Your task to perform on an android device: Open maps Image 0: 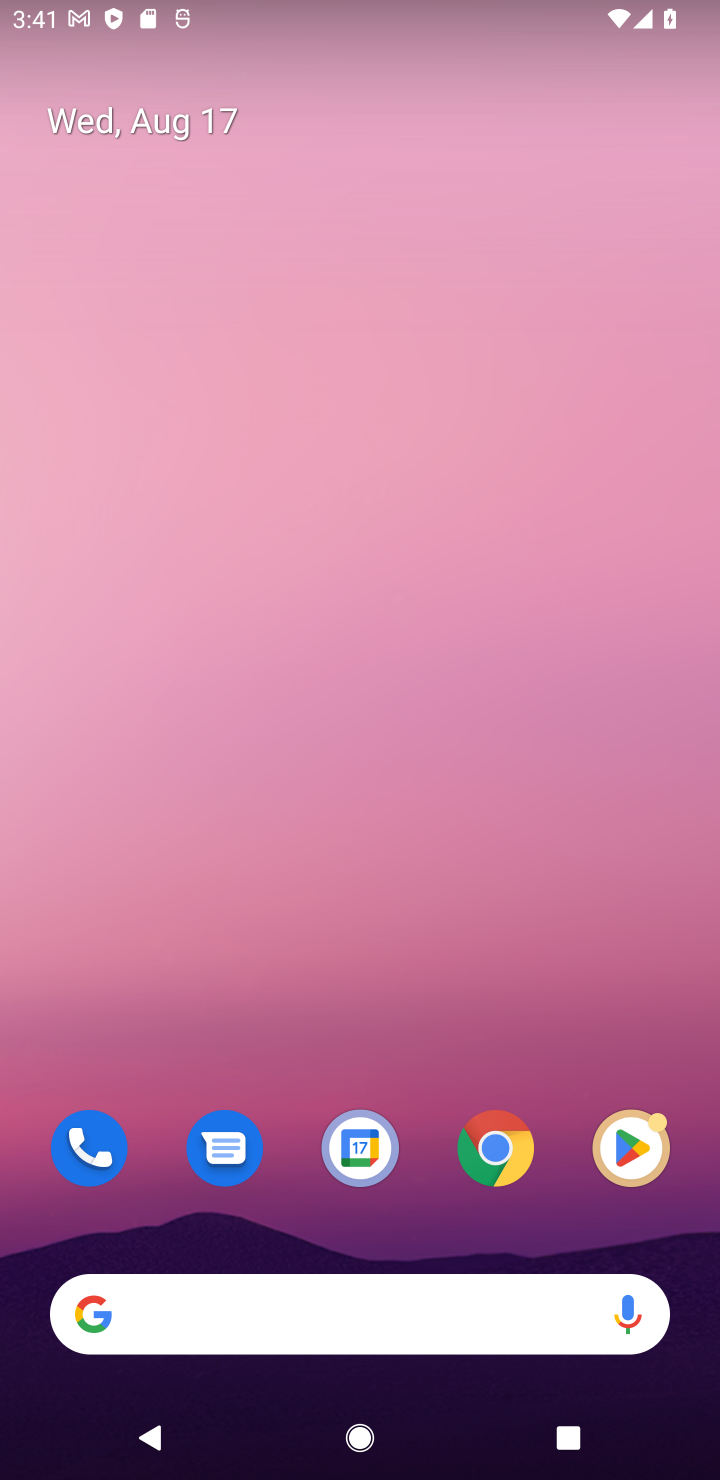
Step 0: drag from (556, 1050) to (551, 31)
Your task to perform on an android device: Open maps Image 1: 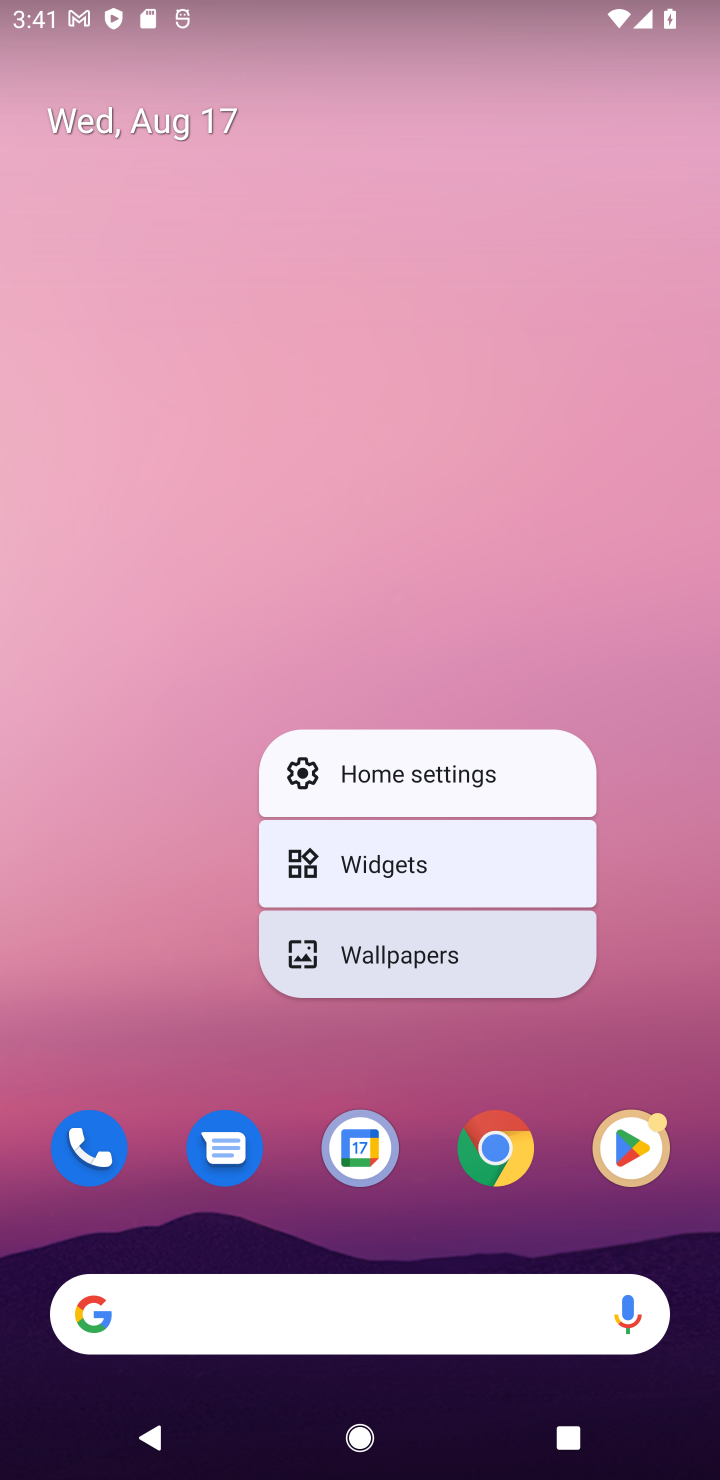
Step 1: click (680, 646)
Your task to perform on an android device: Open maps Image 2: 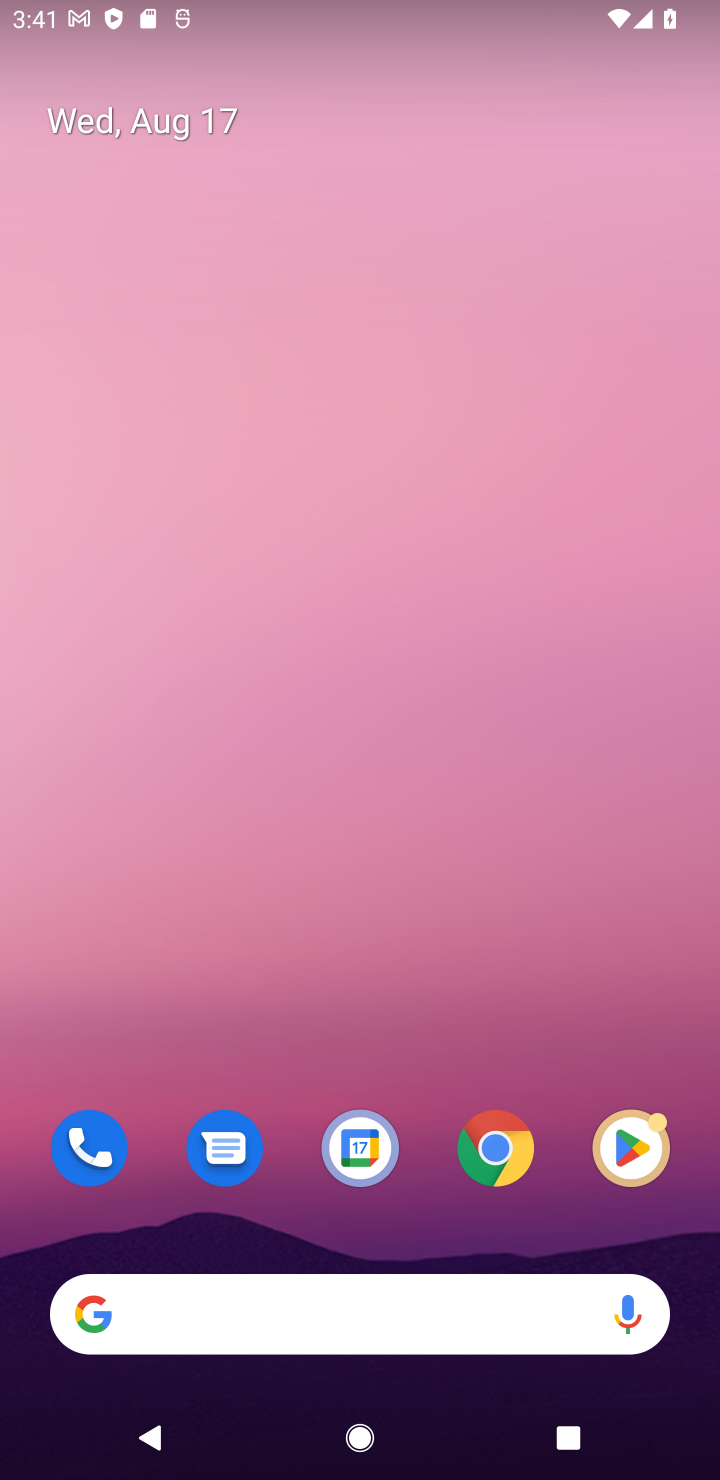
Step 2: drag from (561, 1088) to (530, 502)
Your task to perform on an android device: Open maps Image 3: 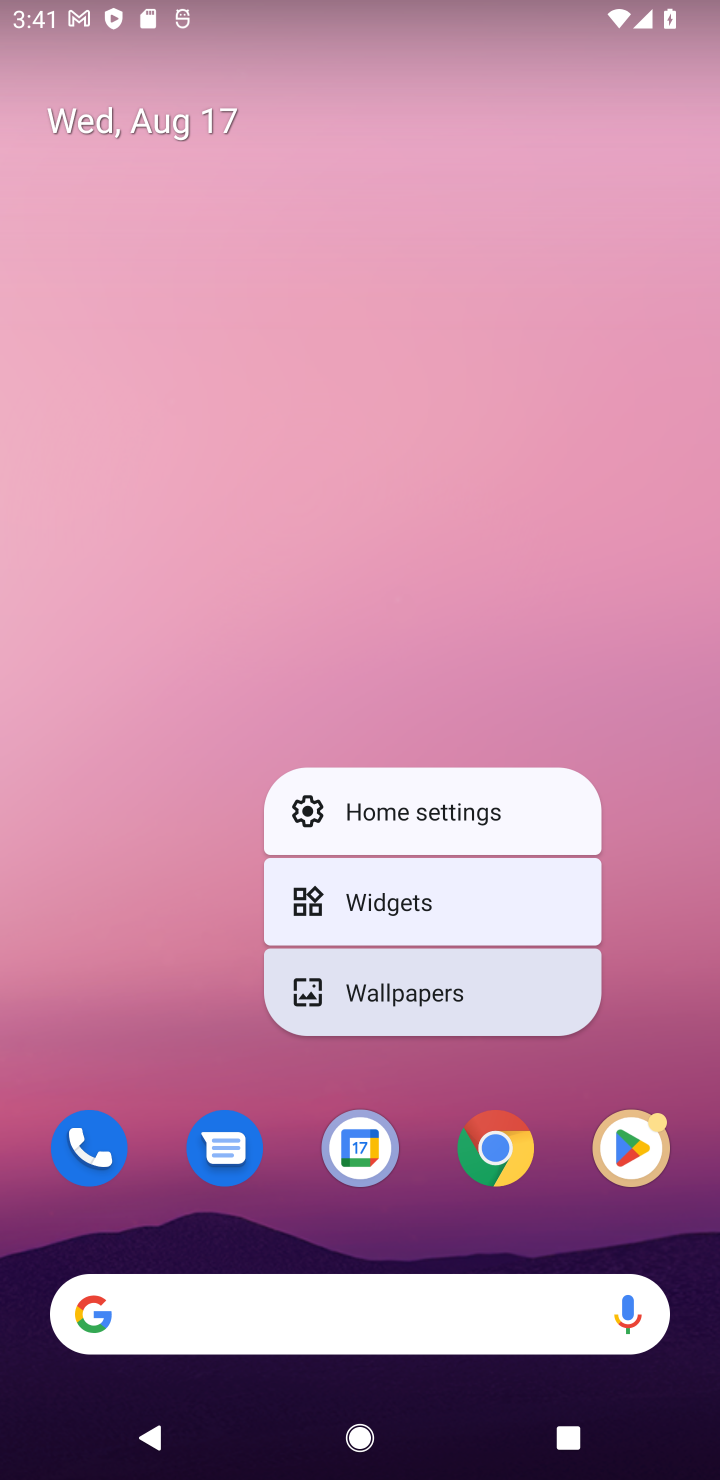
Step 3: click (419, 999)
Your task to perform on an android device: Open maps Image 4: 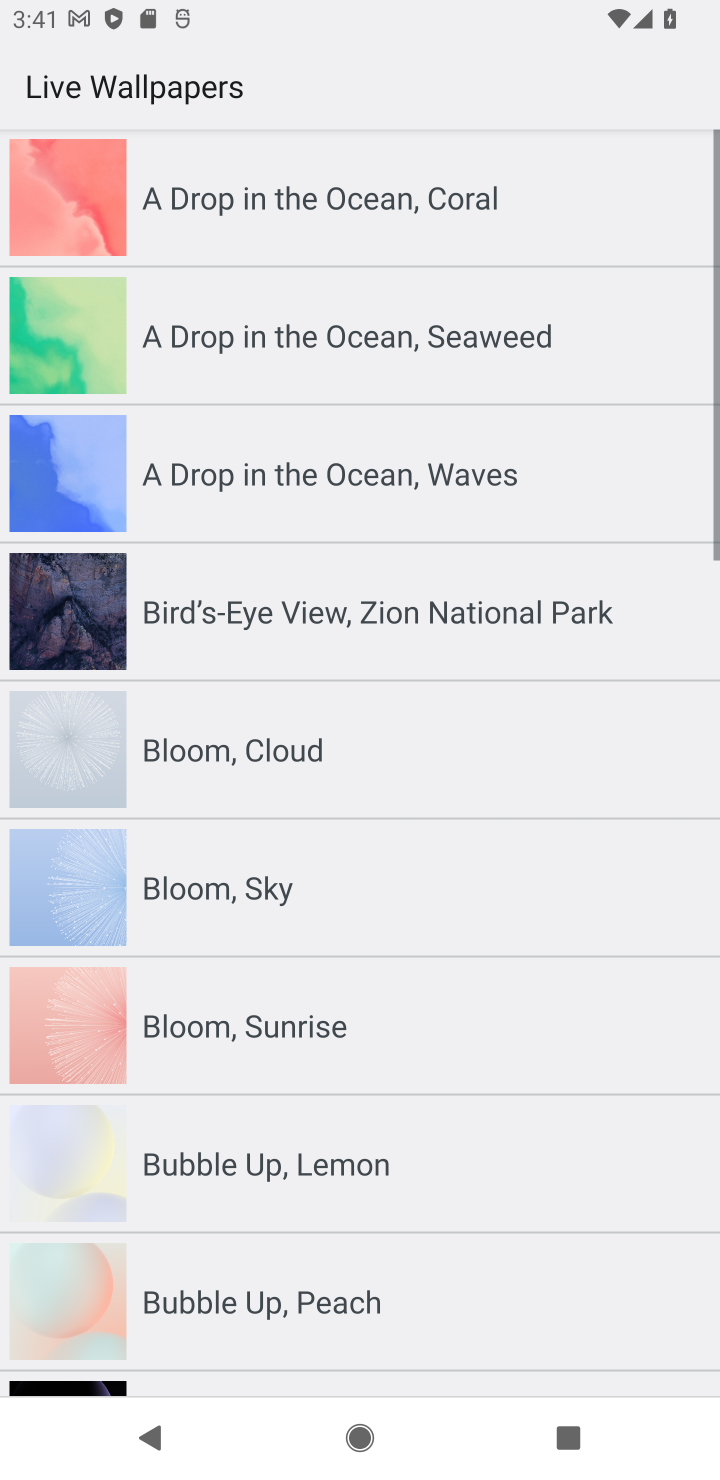
Step 4: press home button
Your task to perform on an android device: Open maps Image 5: 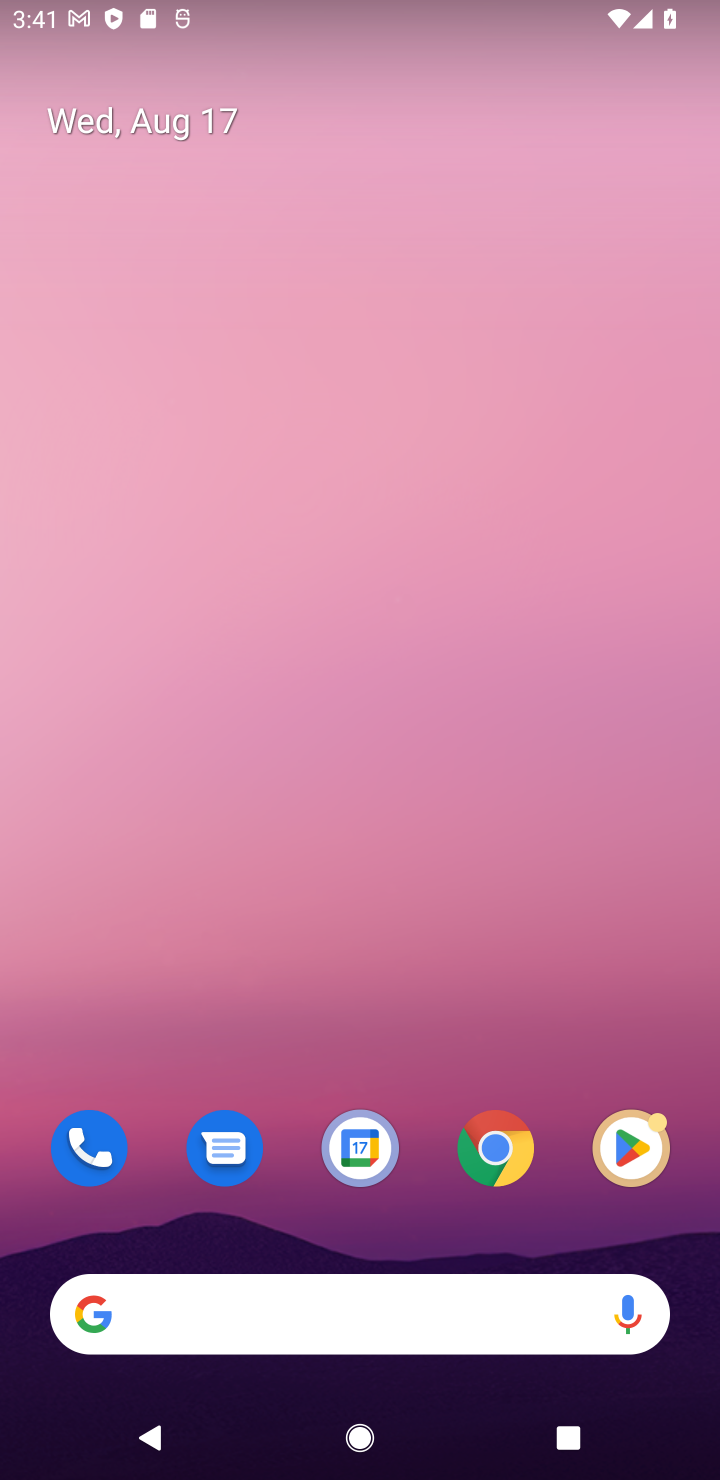
Step 5: drag from (427, 1111) to (378, 513)
Your task to perform on an android device: Open maps Image 6: 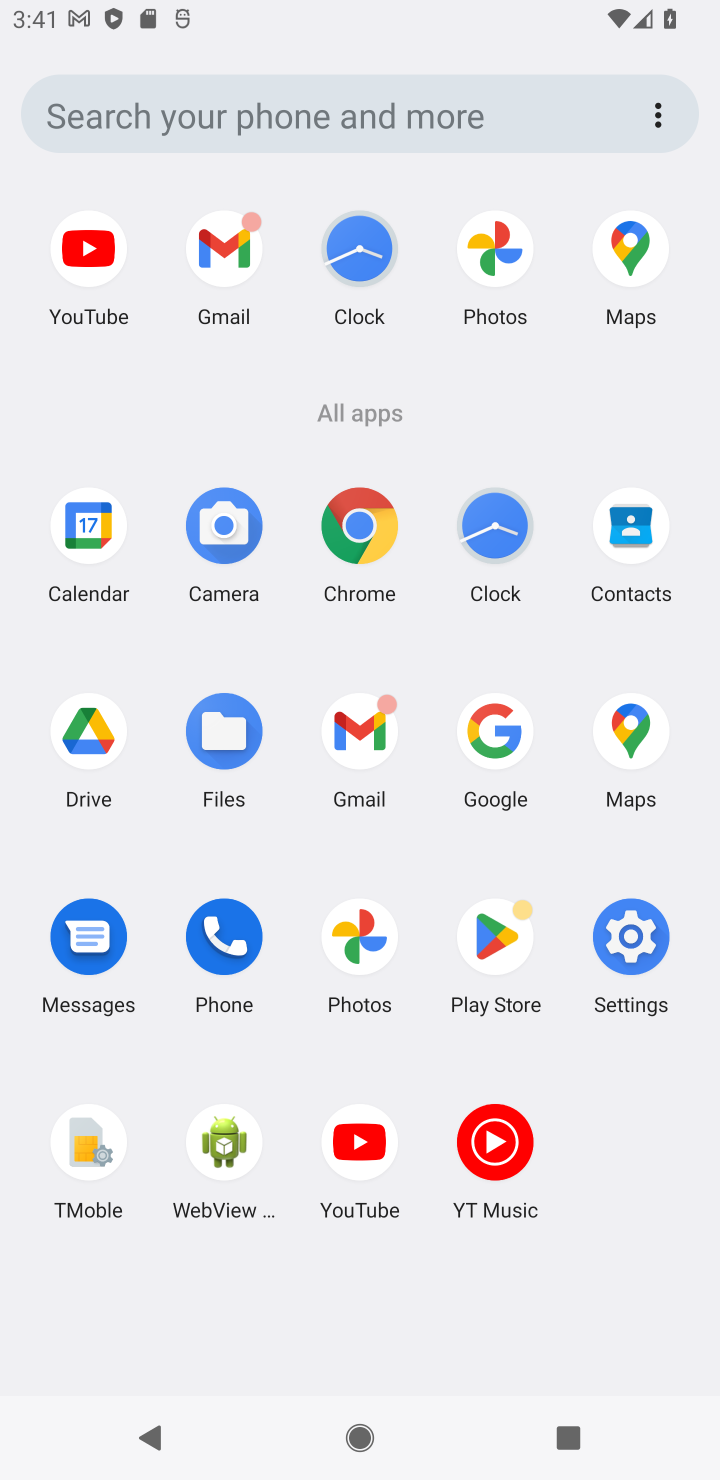
Step 6: click (645, 760)
Your task to perform on an android device: Open maps Image 7: 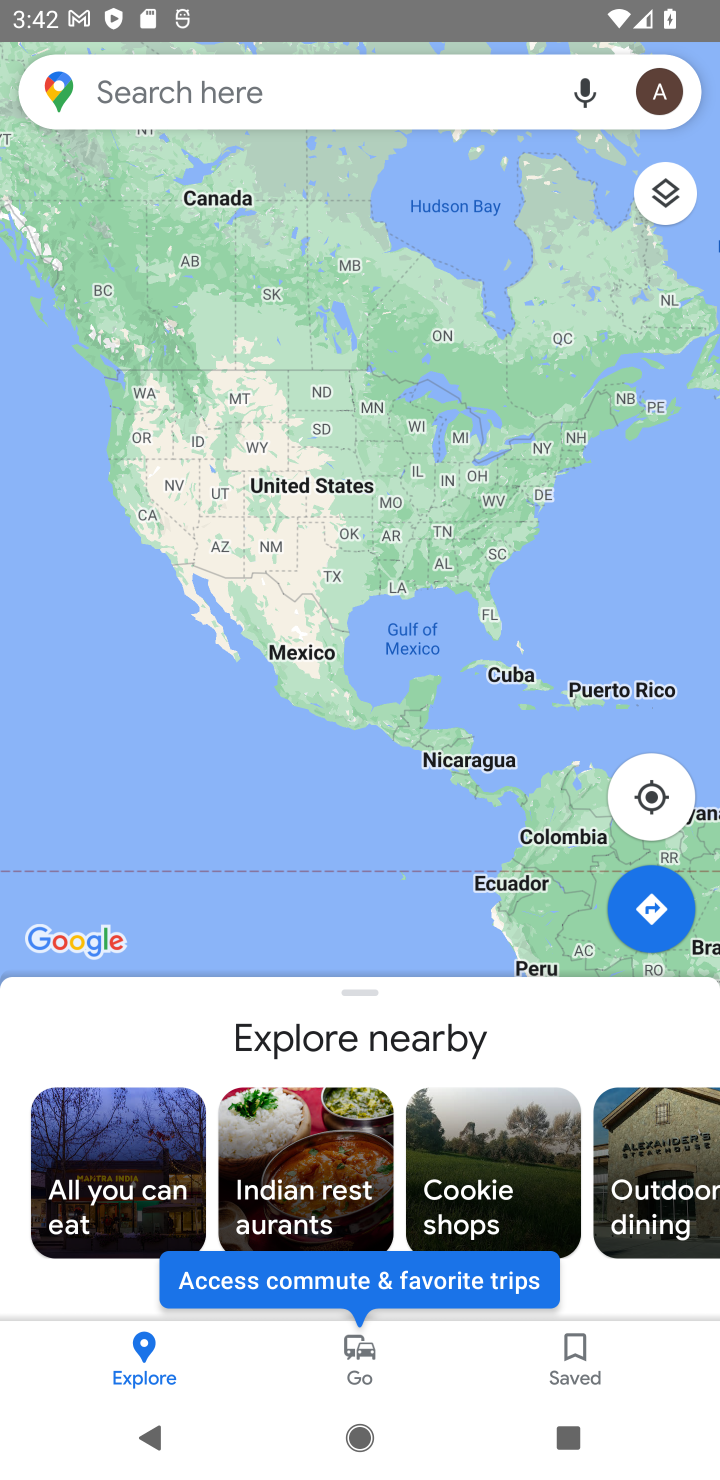
Step 7: task complete